Your task to perform on an android device: open app "Yahoo Mail" Image 0: 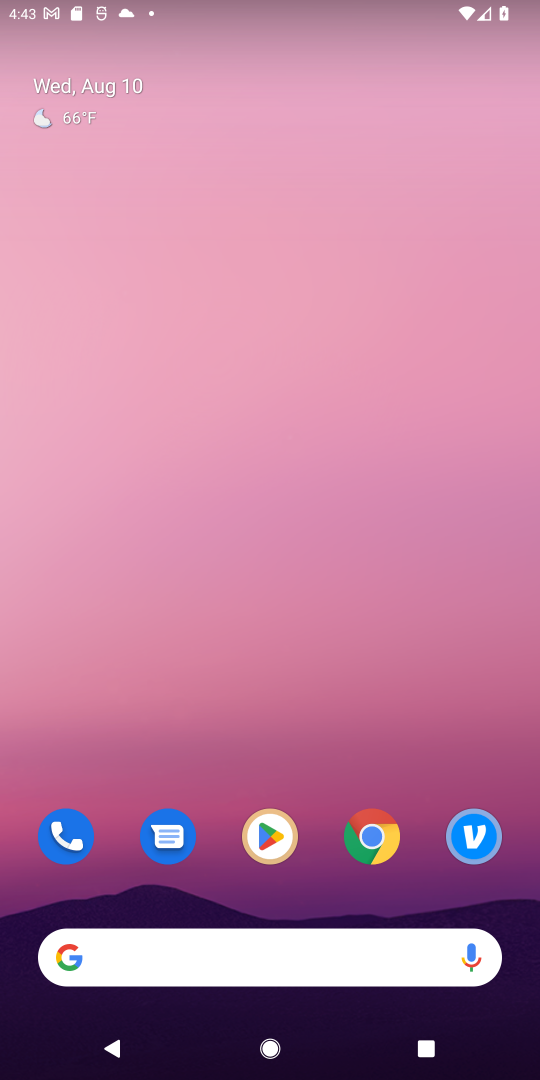
Step 0: drag from (163, 896) to (257, 164)
Your task to perform on an android device: open app "Yahoo Mail" Image 1: 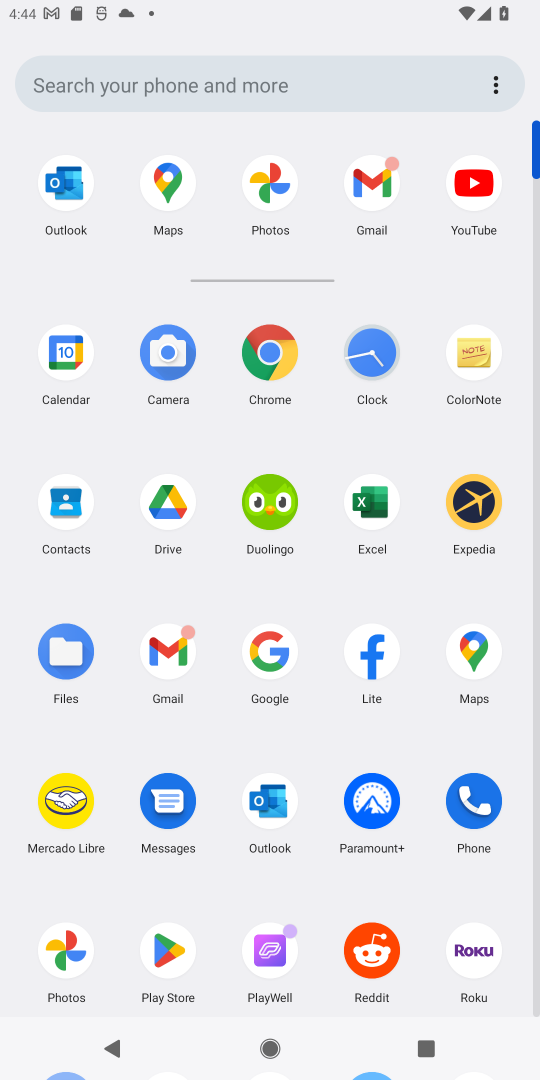
Step 1: click (152, 942)
Your task to perform on an android device: open app "Yahoo Mail" Image 2: 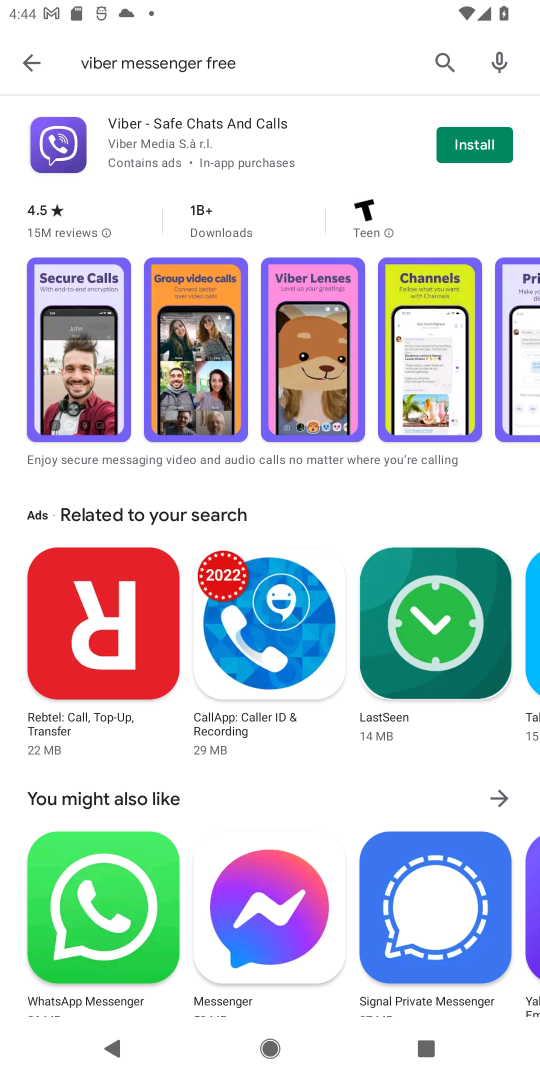
Step 2: click (27, 63)
Your task to perform on an android device: open app "Yahoo Mail" Image 3: 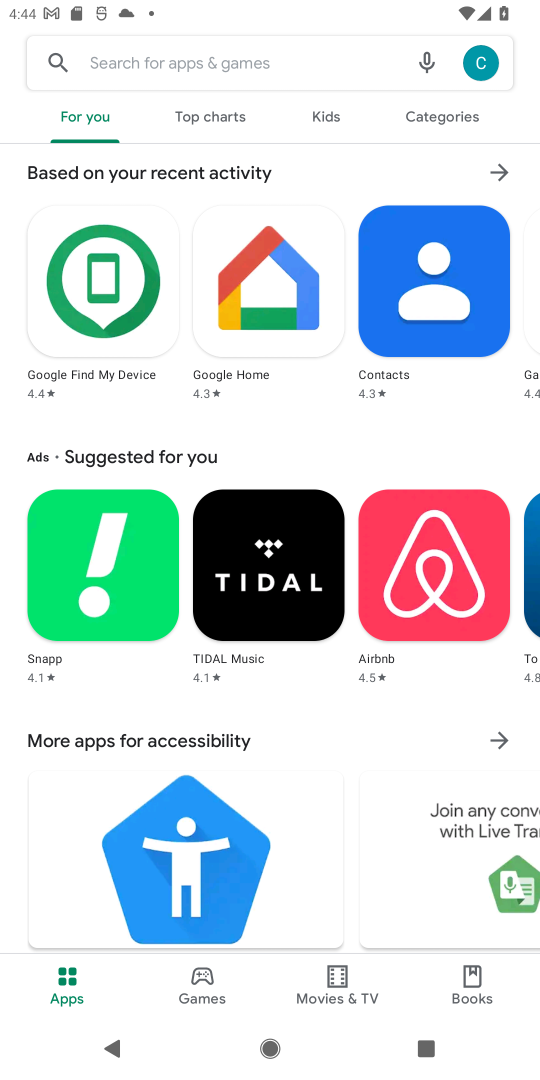
Step 3: click (201, 53)
Your task to perform on an android device: open app "Yahoo Mail" Image 4: 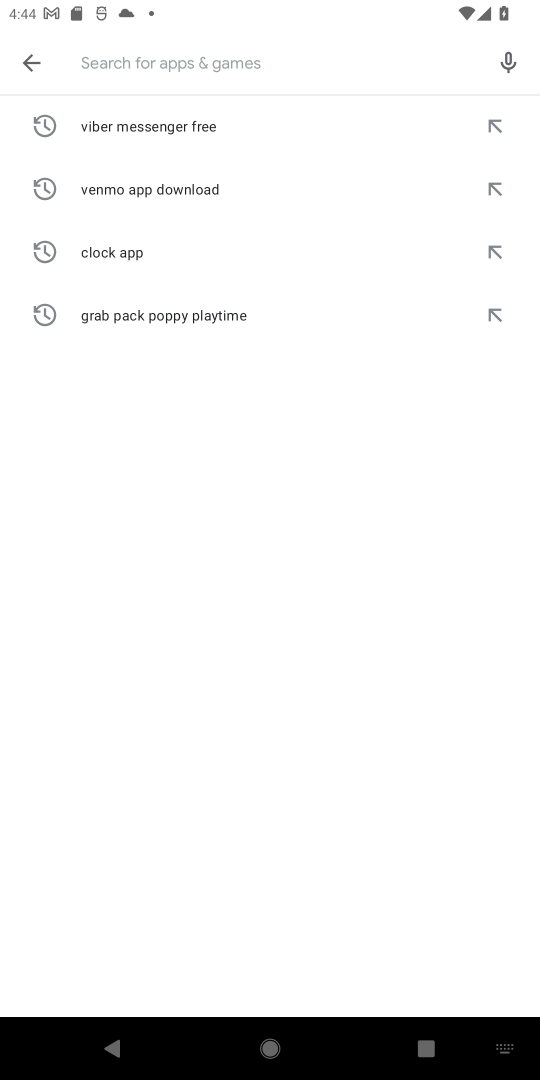
Step 4: type "yahoo mail"
Your task to perform on an android device: open app "Yahoo Mail" Image 5: 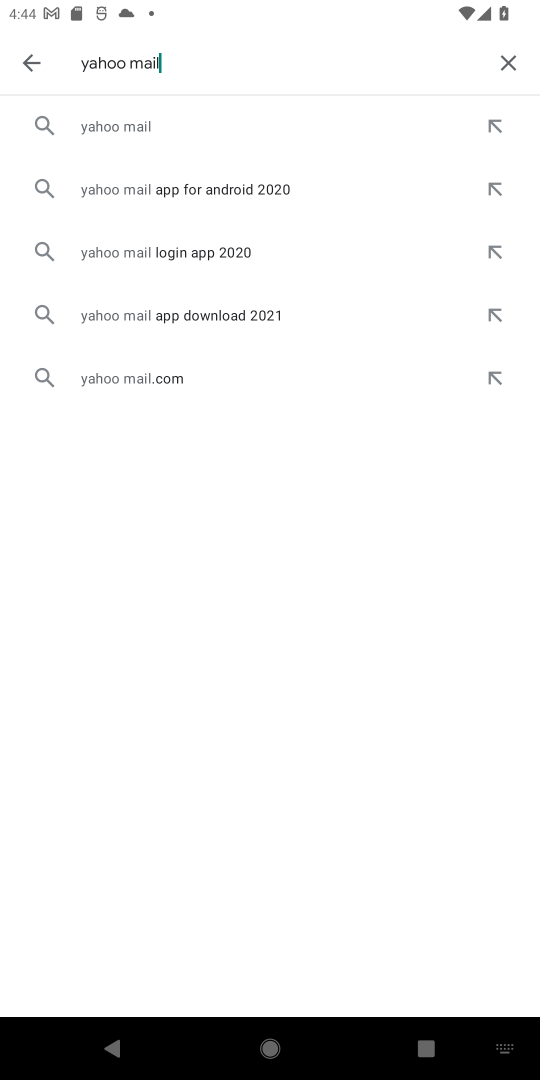
Step 5: click (141, 113)
Your task to perform on an android device: open app "Yahoo Mail" Image 6: 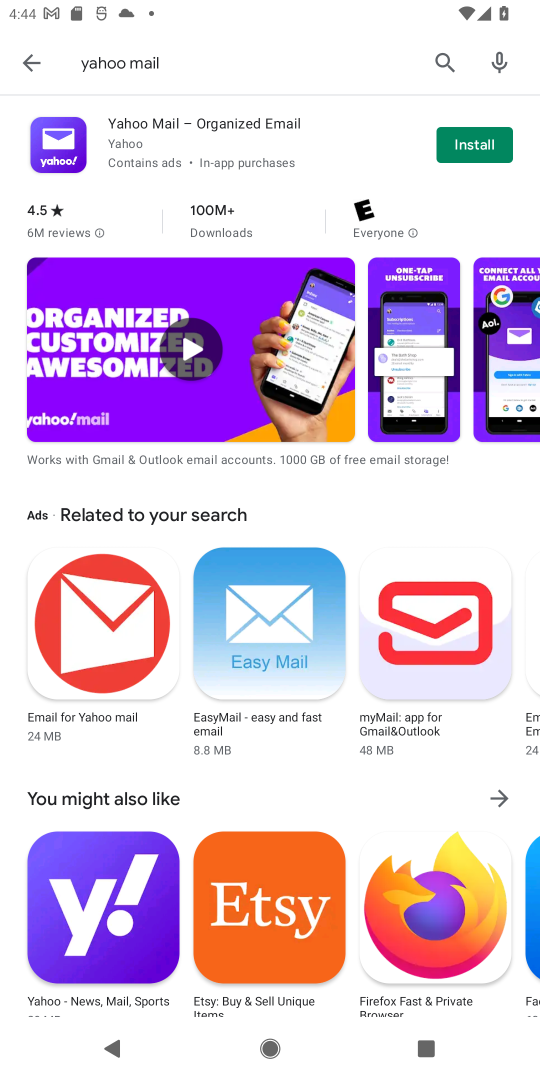
Step 6: click (446, 143)
Your task to perform on an android device: open app "Yahoo Mail" Image 7: 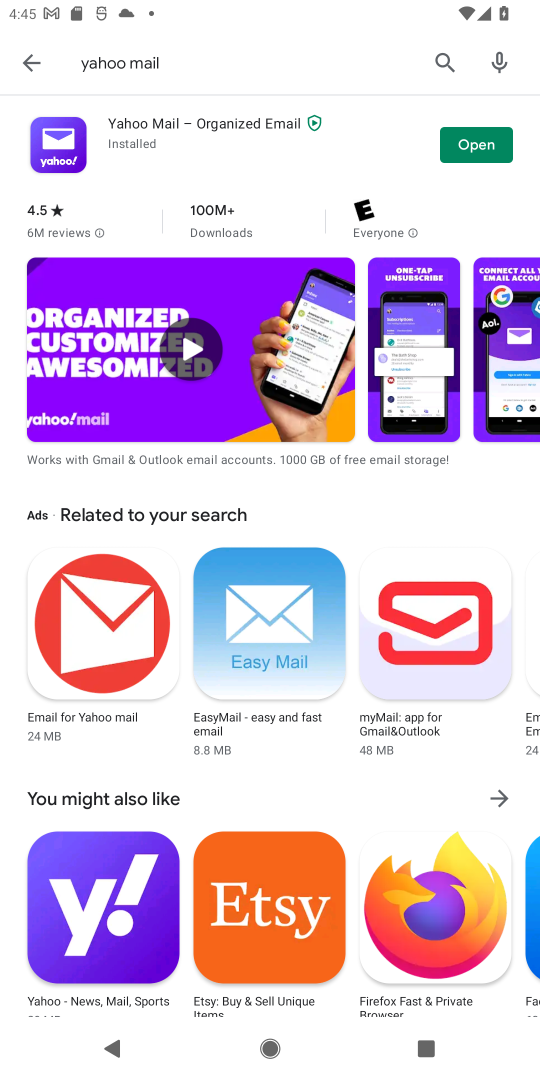
Step 7: click (482, 151)
Your task to perform on an android device: open app "Yahoo Mail" Image 8: 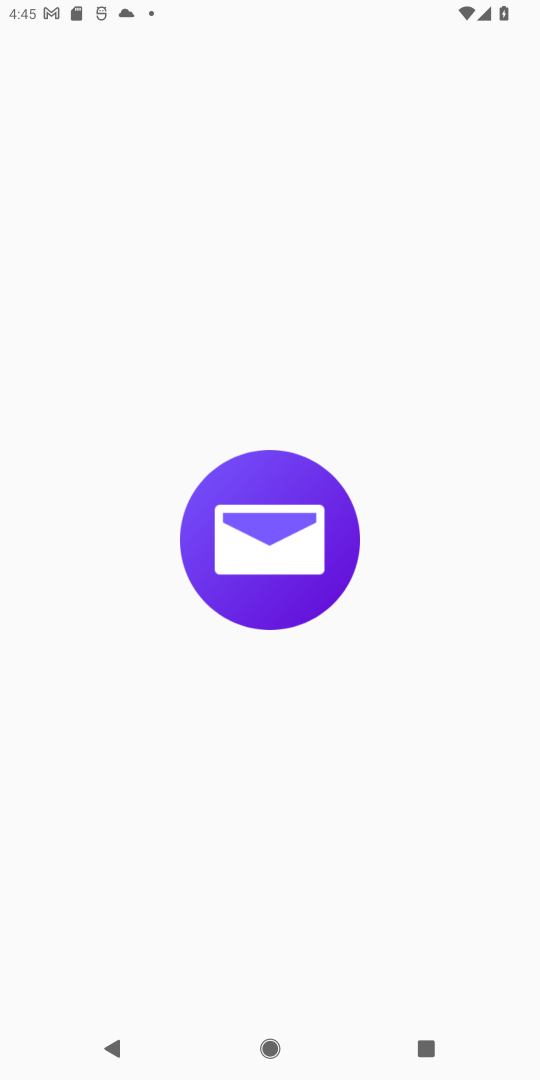
Step 8: task complete